Your task to perform on an android device: Open Chrome and go to settings Image 0: 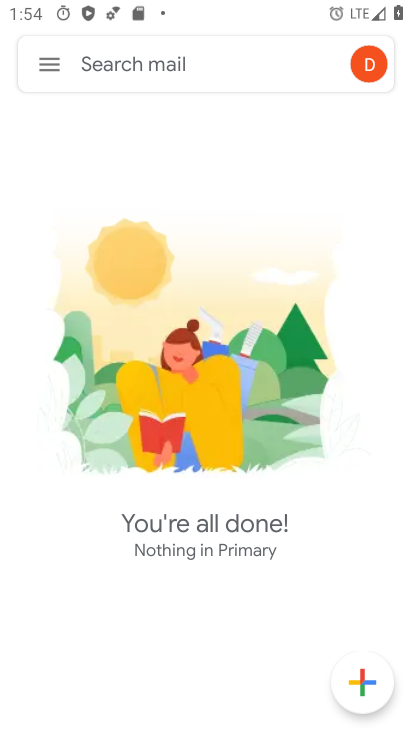
Step 0: press back button
Your task to perform on an android device: Open Chrome and go to settings Image 1: 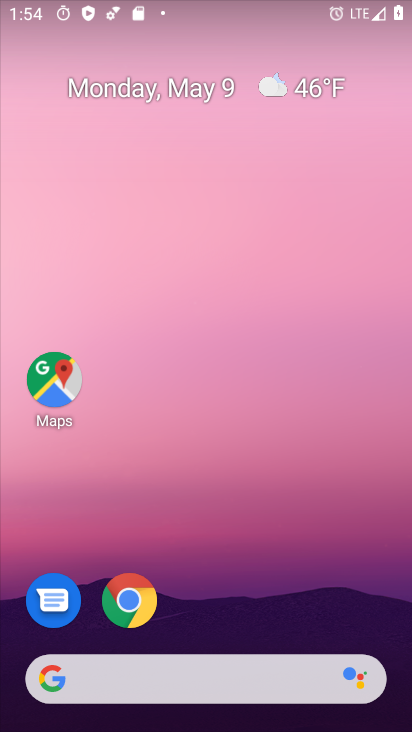
Step 1: drag from (194, 613) to (214, 356)
Your task to perform on an android device: Open Chrome and go to settings Image 2: 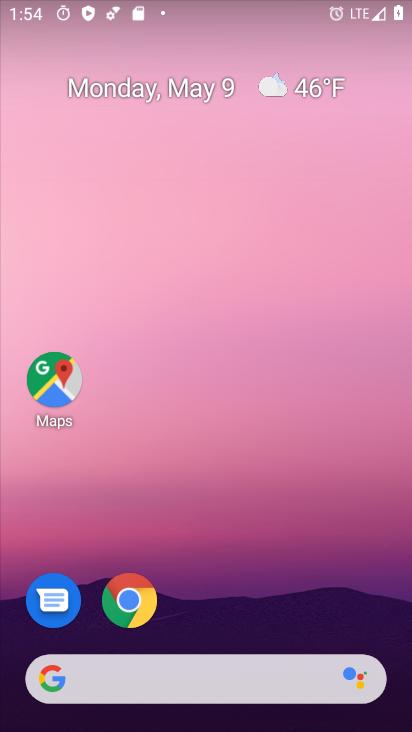
Step 2: click (137, 581)
Your task to perform on an android device: Open Chrome and go to settings Image 3: 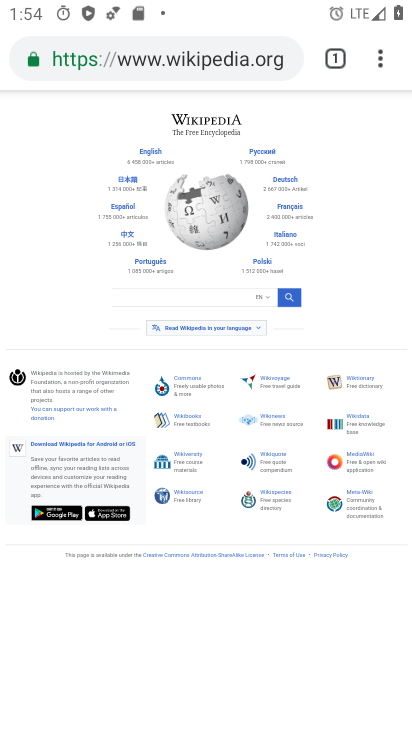
Step 3: task complete